Your task to perform on an android device: find snoozed emails in the gmail app Image 0: 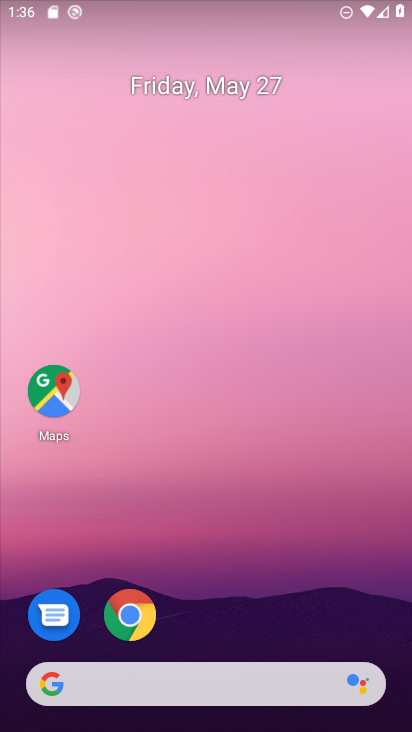
Step 0: drag from (261, 602) to (243, 128)
Your task to perform on an android device: find snoozed emails in the gmail app Image 1: 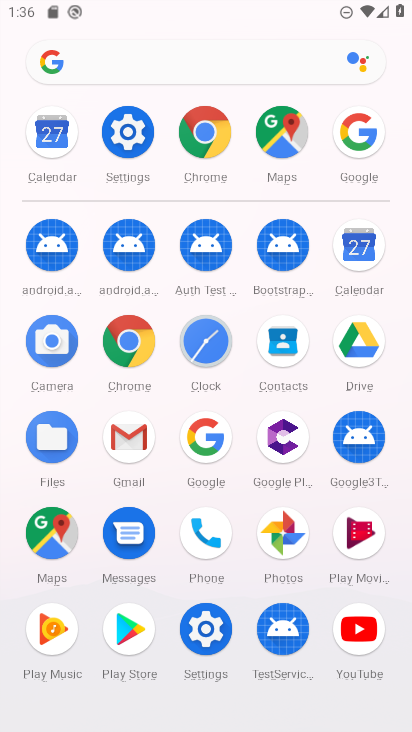
Step 1: click (152, 445)
Your task to perform on an android device: find snoozed emails in the gmail app Image 2: 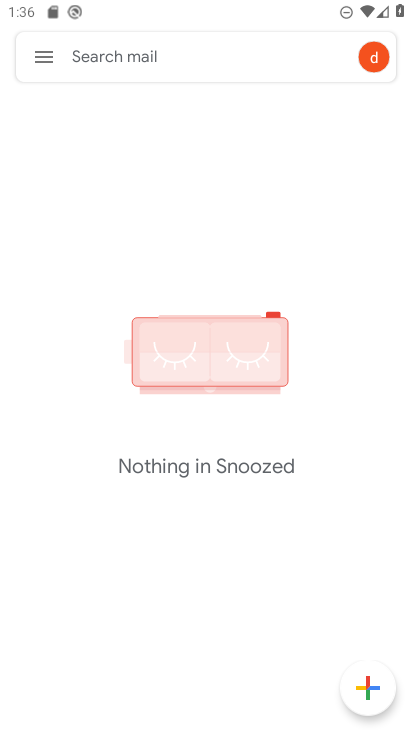
Step 2: click (51, 60)
Your task to perform on an android device: find snoozed emails in the gmail app Image 3: 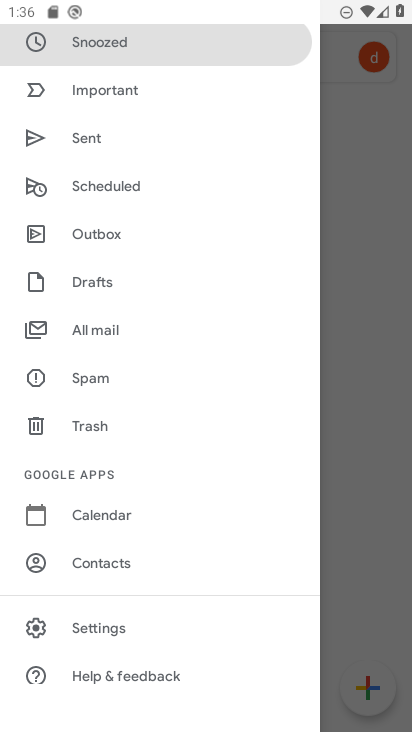
Step 3: drag from (162, 201) to (180, 495)
Your task to perform on an android device: find snoozed emails in the gmail app Image 4: 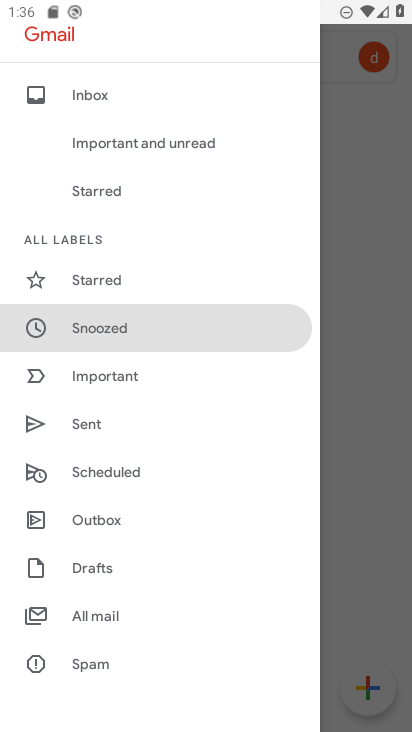
Step 4: click (122, 314)
Your task to perform on an android device: find snoozed emails in the gmail app Image 5: 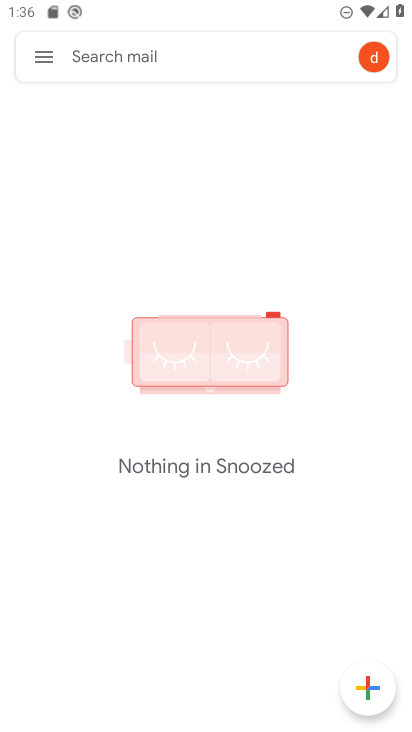
Step 5: task complete